Your task to perform on an android device: change the upload size in google photos Image 0: 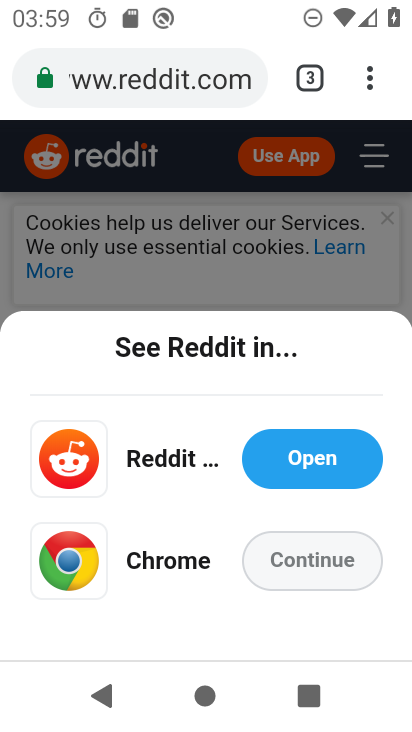
Step 0: press back button
Your task to perform on an android device: change the upload size in google photos Image 1: 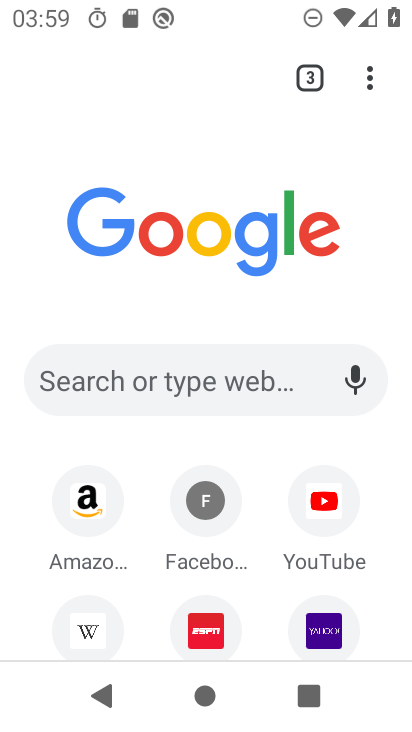
Step 1: press back button
Your task to perform on an android device: change the upload size in google photos Image 2: 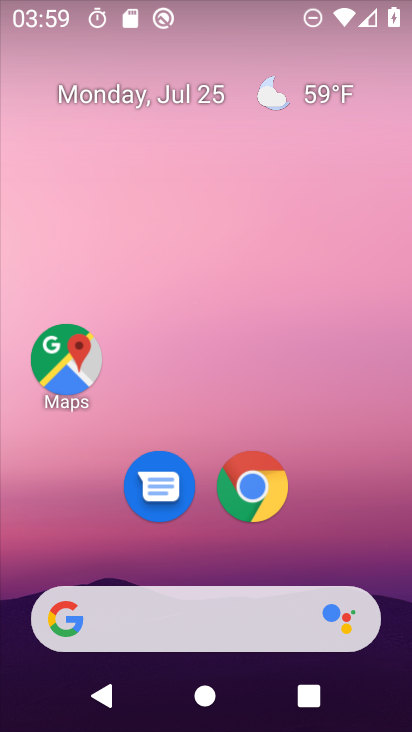
Step 2: drag from (103, 561) to (195, 8)
Your task to perform on an android device: change the upload size in google photos Image 3: 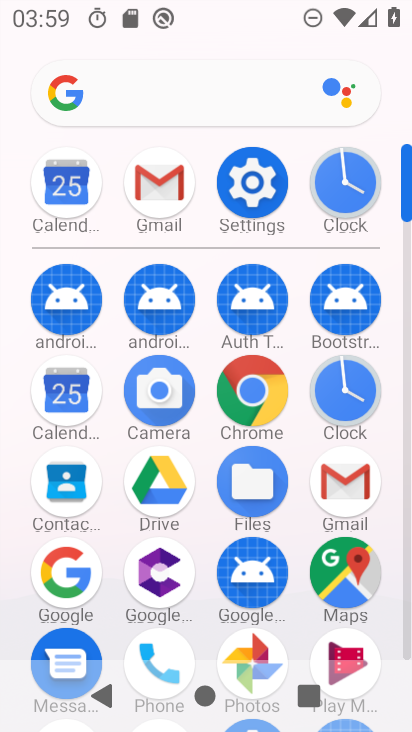
Step 3: click (240, 633)
Your task to perform on an android device: change the upload size in google photos Image 4: 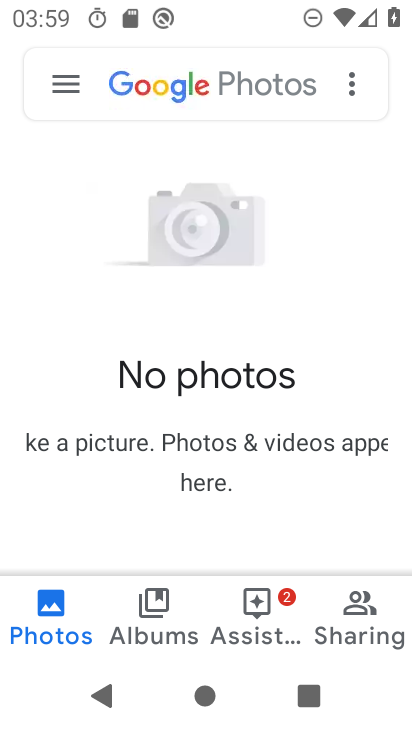
Step 4: click (71, 78)
Your task to perform on an android device: change the upload size in google photos Image 5: 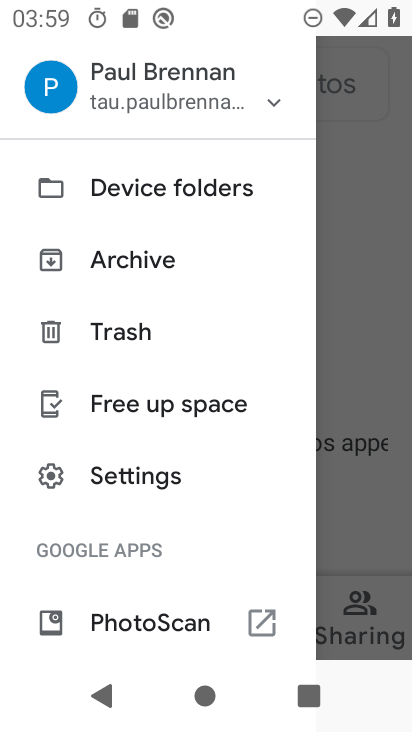
Step 5: click (140, 463)
Your task to perform on an android device: change the upload size in google photos Image 6: 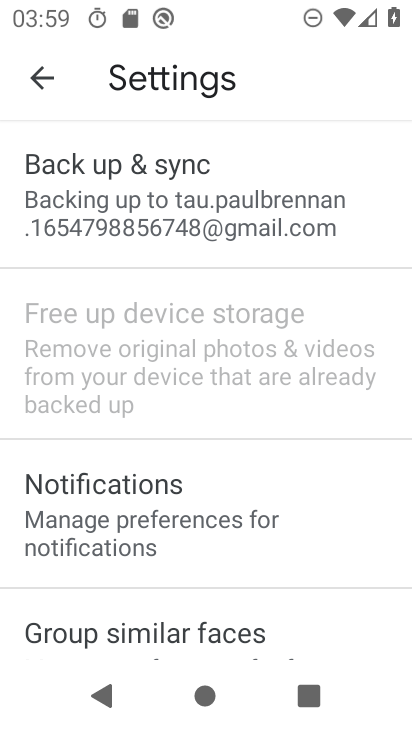
Step 6: click (98, 181)
Your task to perform on an android device: change the upload size in google photos Image 7: 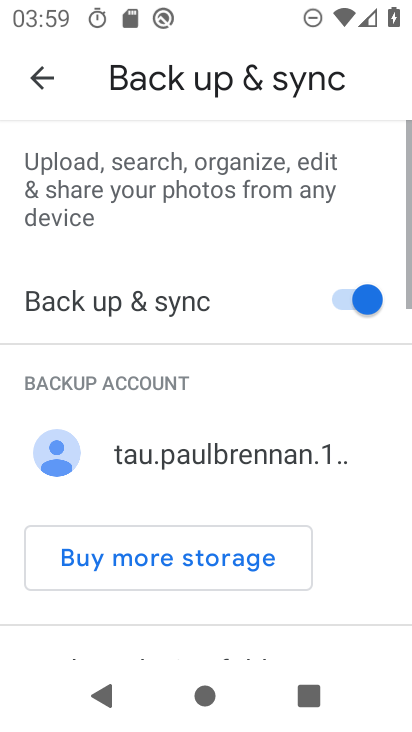
Step 7: drag from (168, 531) to (250, 38)
Your task to perform on an android device: change the upload size in google photos Image 8: 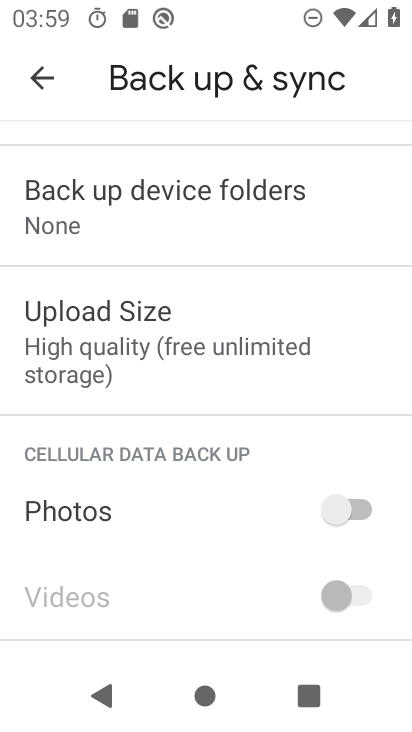
Step 8: click (108, 324)
Your task to perform on an android device: change the upload size in google photos Image 9: 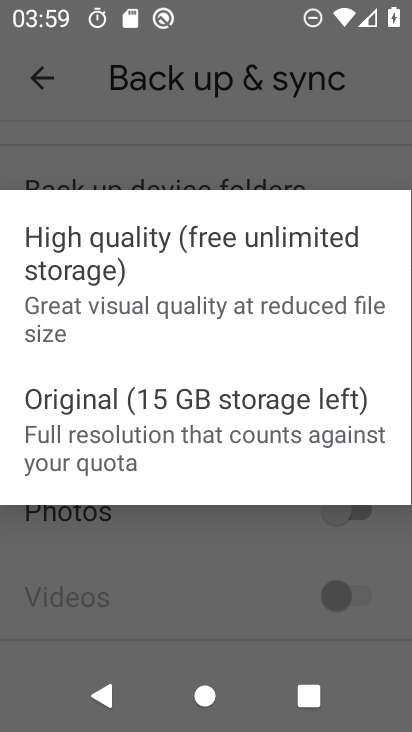
Step 9: click (148, 422)
Your task to perform on an android device: change the upload size in google photos Image 10: 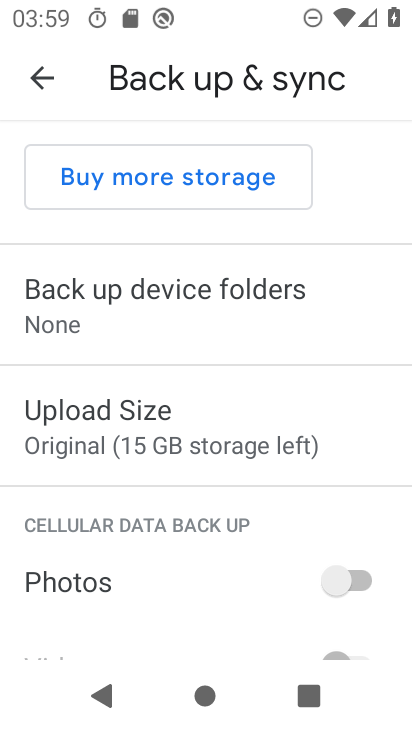
Step 10: task complete